Your task to perform on an android device: Go to internet settings Image 0: 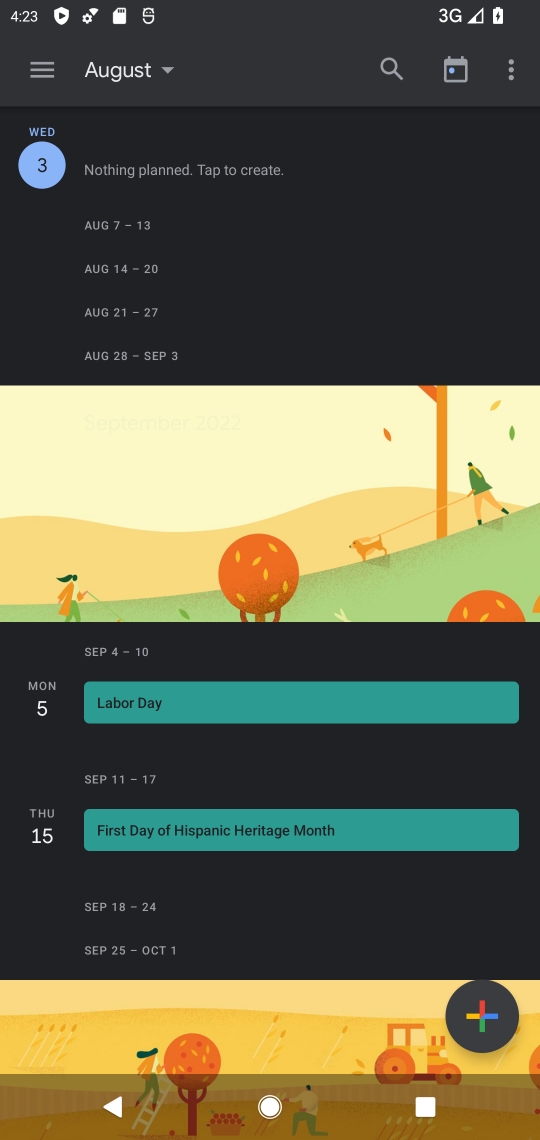
Step 0: task complete